Your task to perform on an android device: Check the weather Image 0: 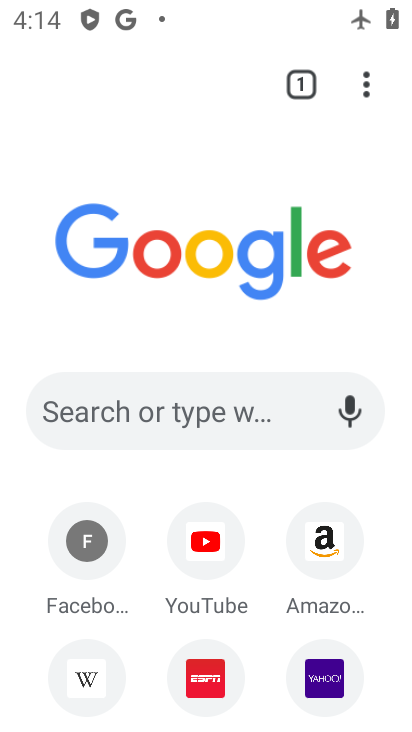
Step 0: press home button
Your task to perform on an android device: Check the weather Image 1: 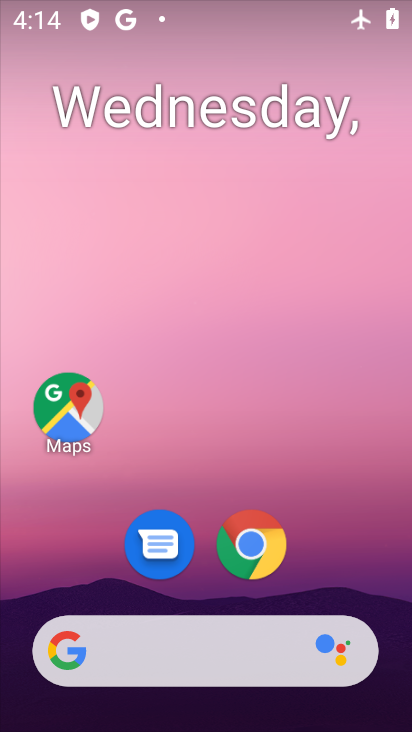
Step 1: click (248, 666)
Your task to perform on an android device: Check the weather Image 2: 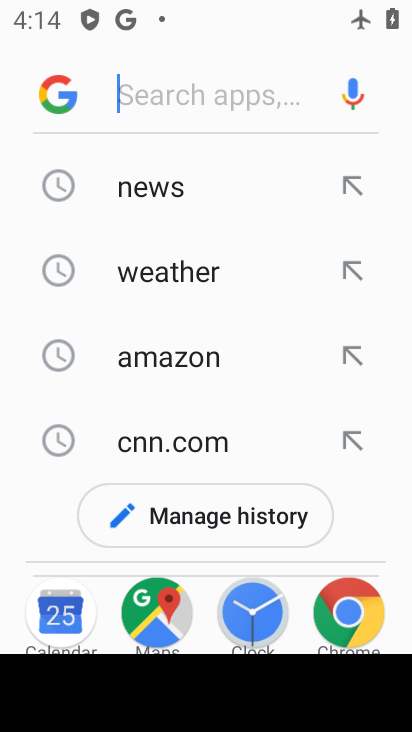
Step 2: click (192, 278)
Your task to perform on an android device: Check the weather Image 3: 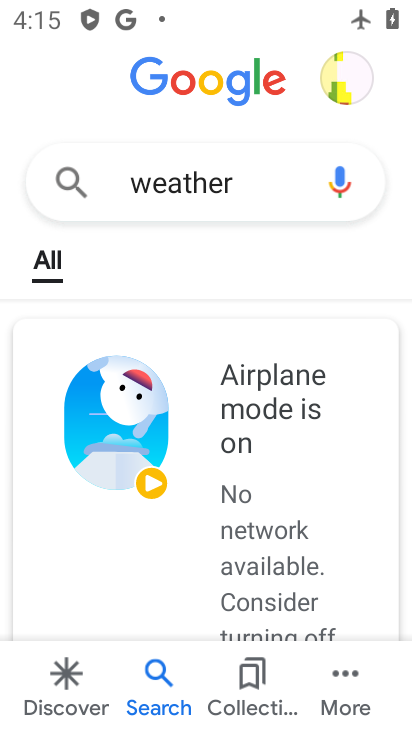
Step 3: task complete